Your task to perform on an android device: toggle javascript in the chrome app Image 0: 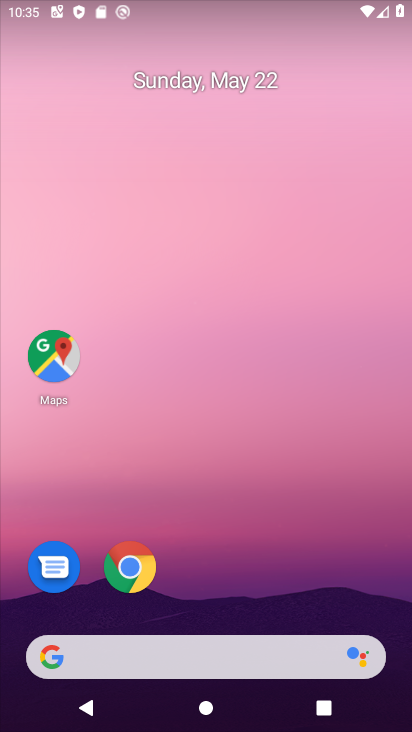
Step 0: drag from (263, 564) to (239, 10)
Your task to perform on an android device: toggle javascript in the chrome app Image 1: 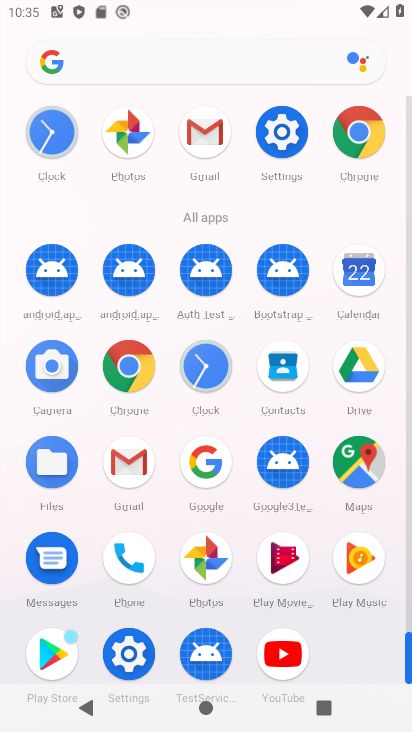
Step 1: drag from (28, 418) to (32, 240)
Your task to perform on an android device: toggle javascript in the chrome app Image 2: 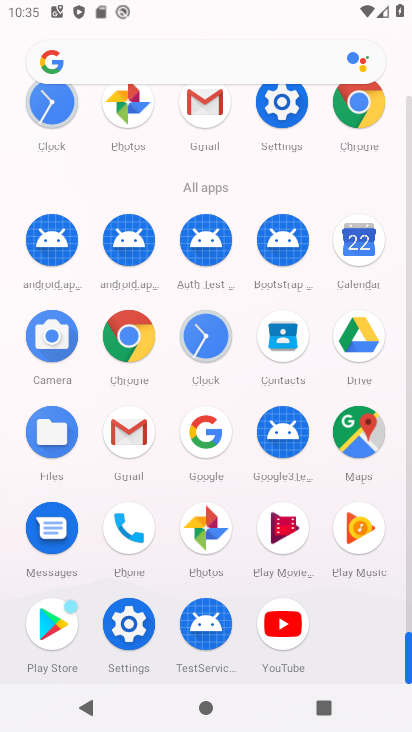
Step 2: click (127, 332)
Your task to perform on an android device: toggle javascript in the chrome app Image 3: 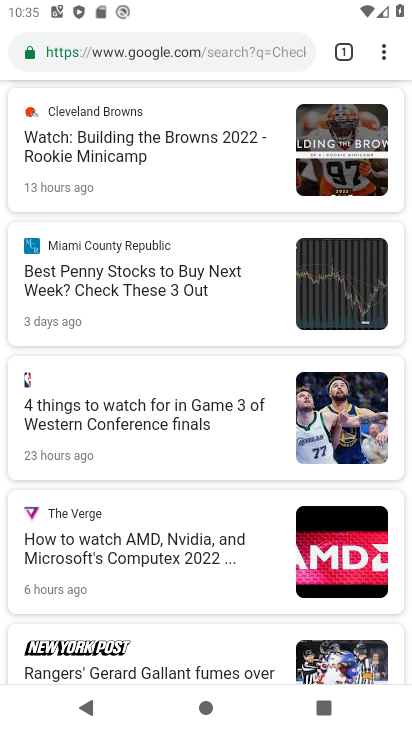
Step 3: drag from (383, 50) to (198, 579)
Your task to perform on an android device: toggle javascript in the chrome app Image 4: 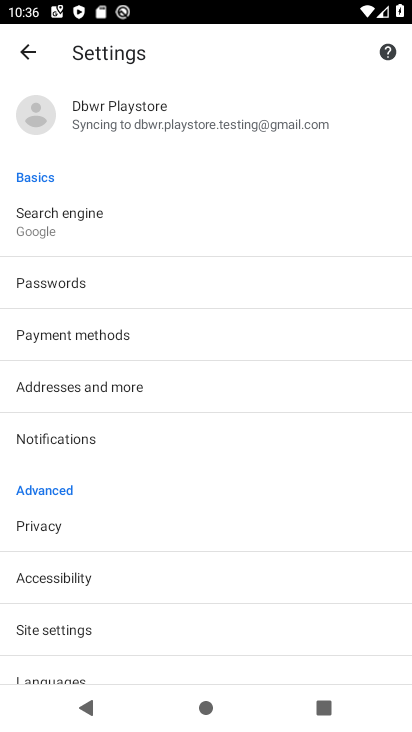
Step 4: drag from (187, 599) to (255, 215)
Your task to perform on an android device: toggle javascript in the chrome app Image 5: 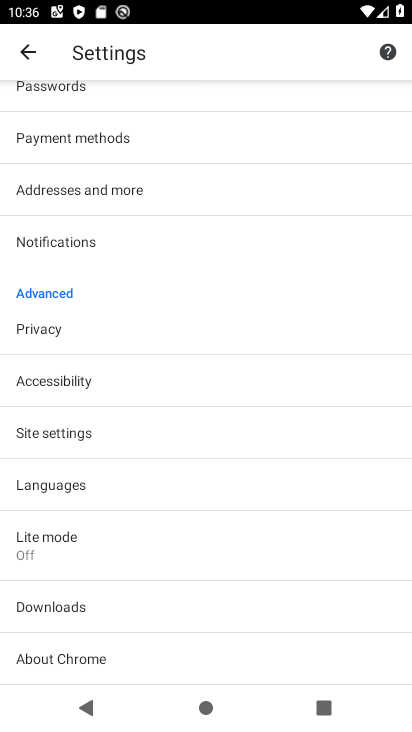
Step 5: click (83, 421)
Your task to perform on an android device: toggle javascript in the chrome app Image 6: 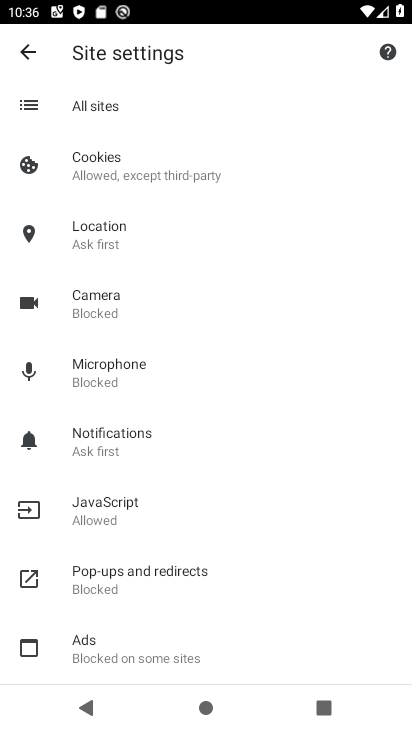
Step 6: click (115, 501)
Your task to perform on an android device: toggle javascript in the chrome app Image 7: 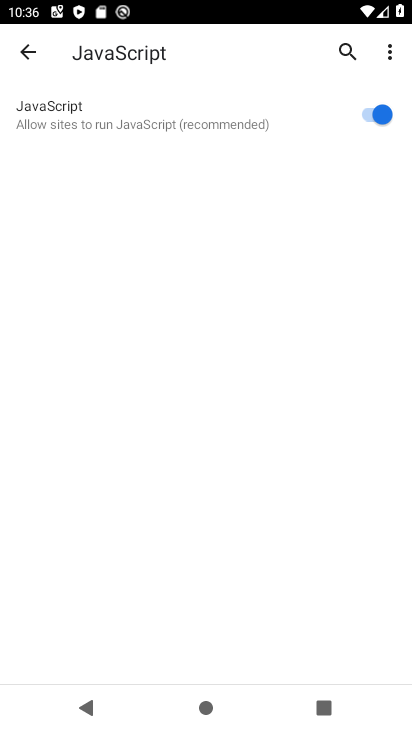
Step 7: click (365, 119)
Your task to perform on an android device: toggle javascript in the chrome app Image 8: 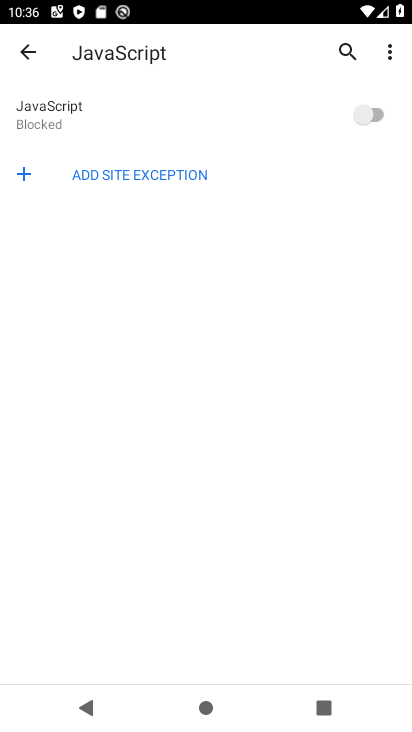
Step 8: task complete